Your task to perform on an android device: Go to settings Image 0: 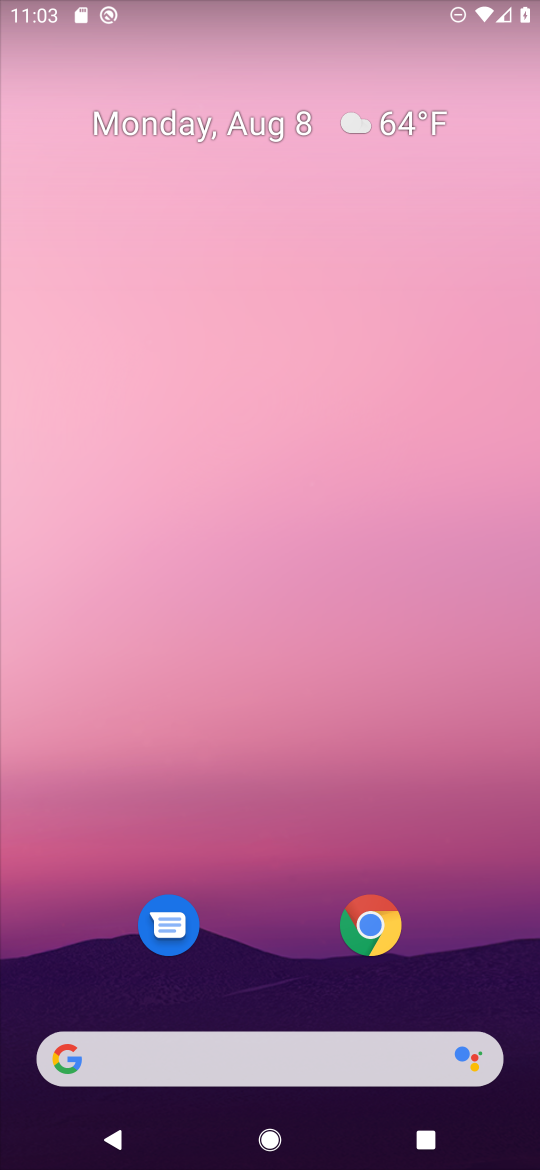
Step 0: drag from (449, 957) to (506, 88)
Your task to perform on an android device: Go to settings Image 1: 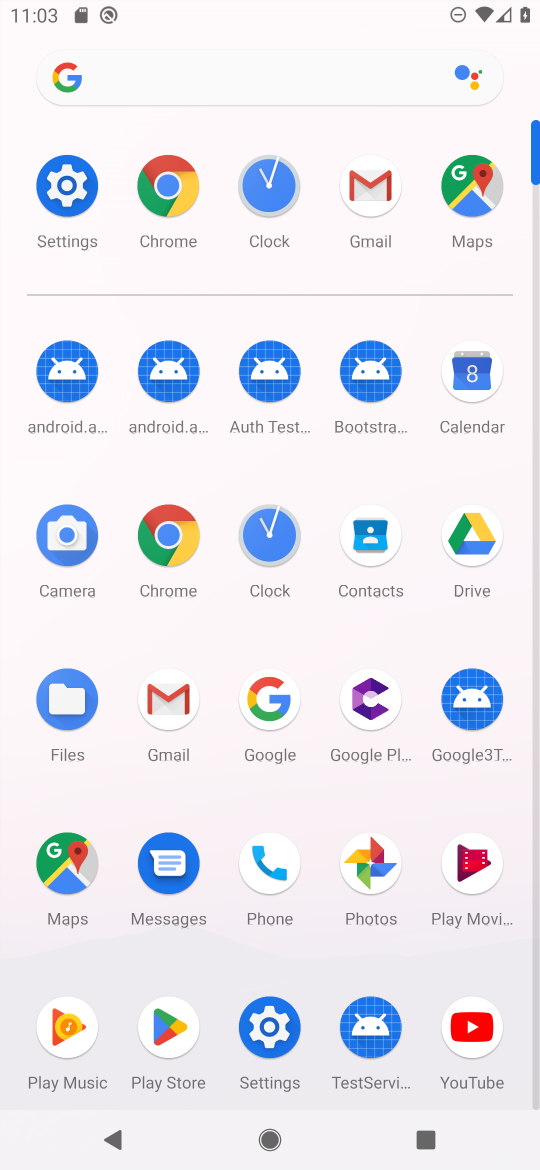
Step 1: click (256, 1035)
Your task to perform on an android device: Go to settings Image 2: 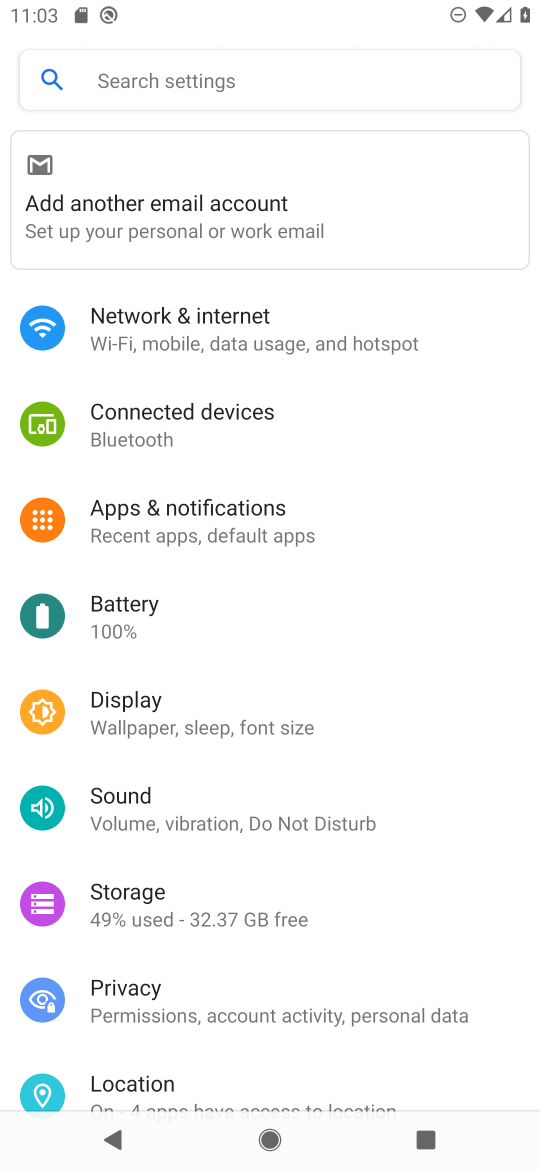
Step 2: task complete